Your task to perform on an android device: Do I have any events tomorrow? Image 0: 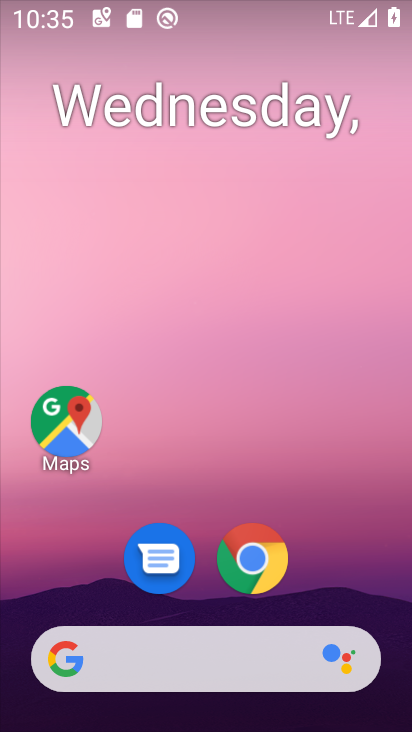
Step 0: drag from (60, 487) to (231, 108)
Your task to perform on an android device: Do I have any events tomorrow? Image 1: 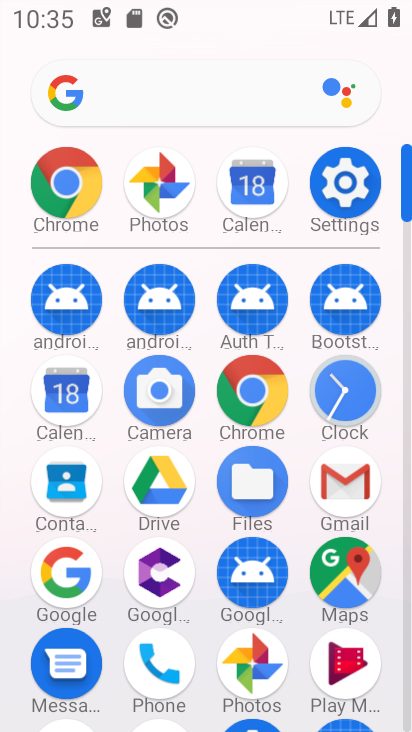
Step 1: click (55, 404)
Your task to perform on an android device: Do I have any events tomorrow? Image 2: 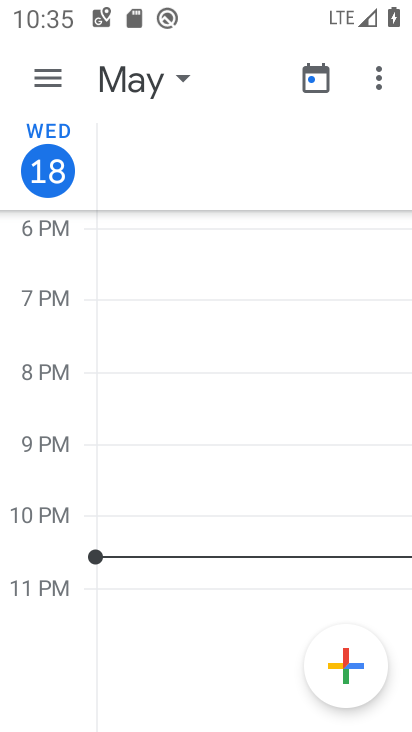
Step 2: click (163, 78)
Your task to perform on an android device: Do I have any events tomorrow? Image 3: 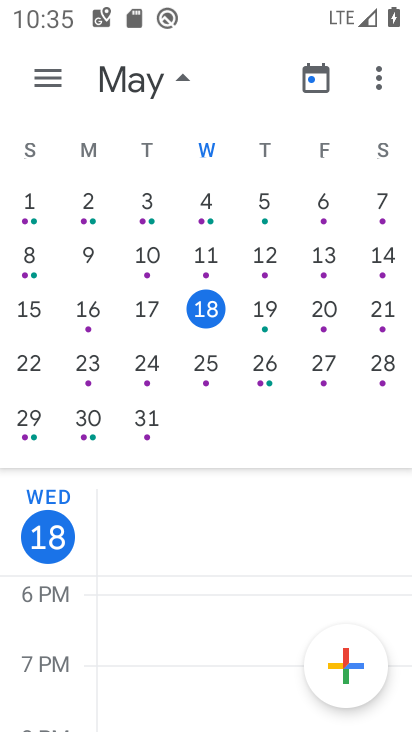
Step 3: click (271, 313)
Your task to perform on an android device: Do I have any events tomorrow? Image 4: 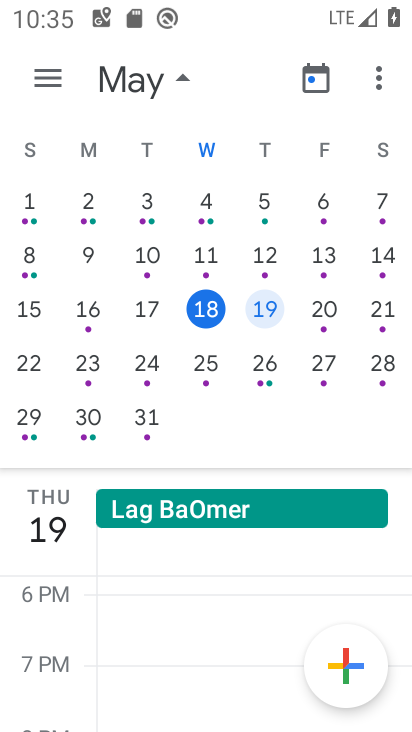
Step 4: task complete